Your task to perform on an android device: turn on showing notifications on the lock screen Image 0: 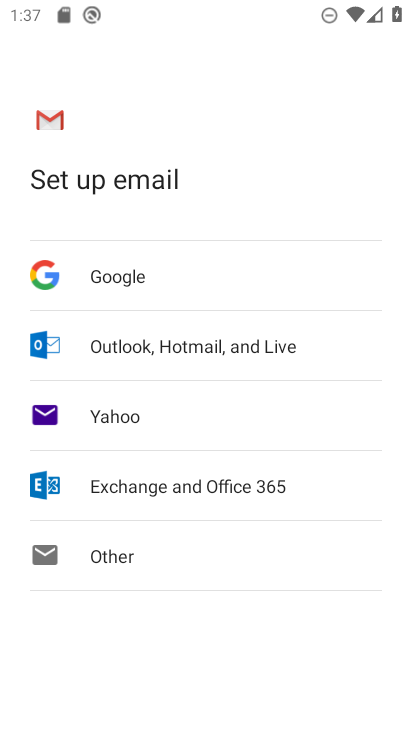
Step 0: press home button
Your task to perform on an android device: turn on showing notifications on the lock screen Image 1: 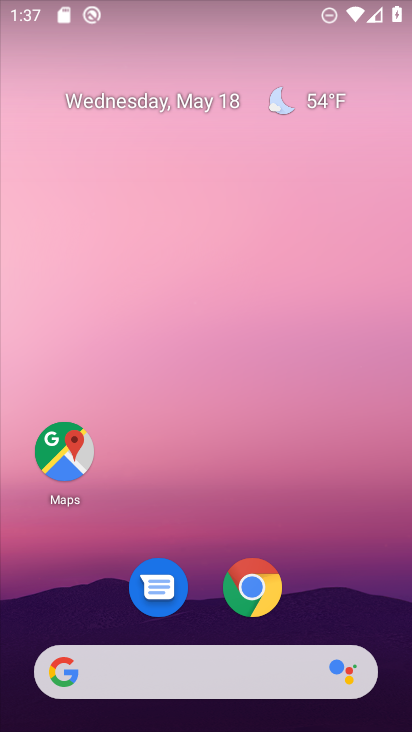
Step 1: drag from (89, 636) to (185, 237)
Your task to perform on an android device: turn on showing notifications on the lock screen Image 2: 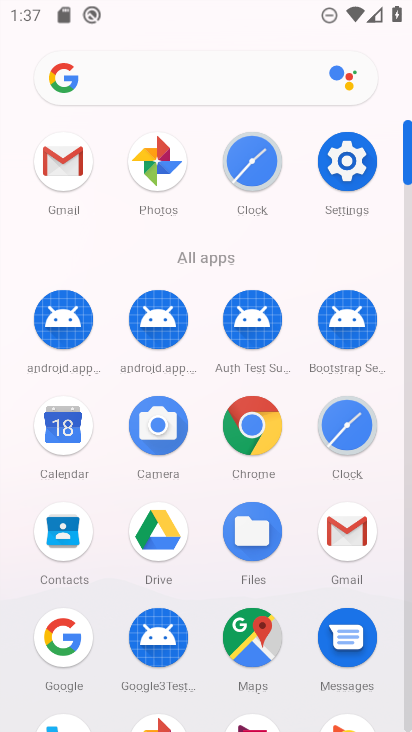
Step 2: drag from (150, 622) to (247, 383)
Your task to perform on an android device: turn on showing notifications on the lock screen Image 3: 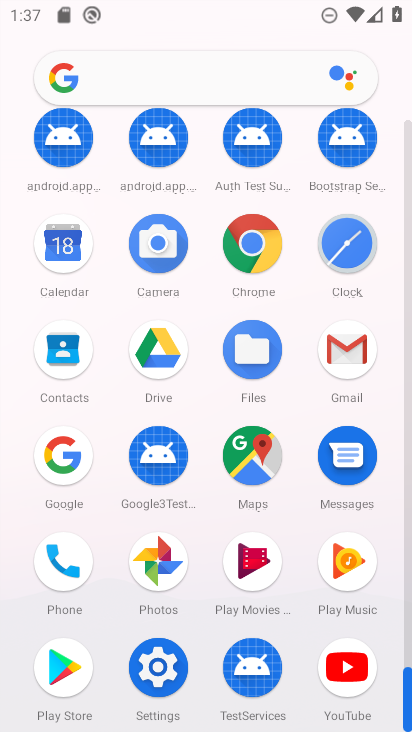
Step 3: click (158, 664)
Your task to perform on an android device: turn on showing notifications on the lock screen Image 4: 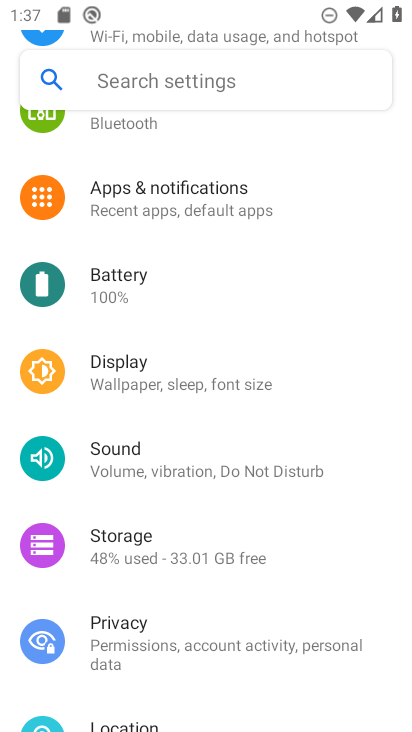
Step 4: click (222, 215)
Your task to perform on an android device: turn on showing notifications on the lock screen Image 5: 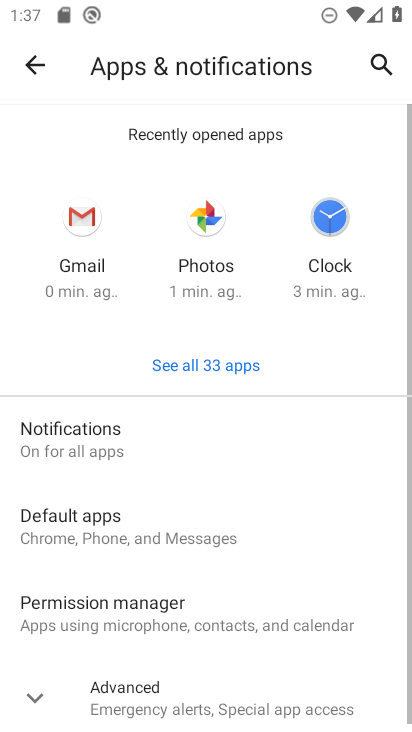
Step 5: click (168, 449)
Your task to perform on an android device: turn on showing notifications on the lock screen Image 6: 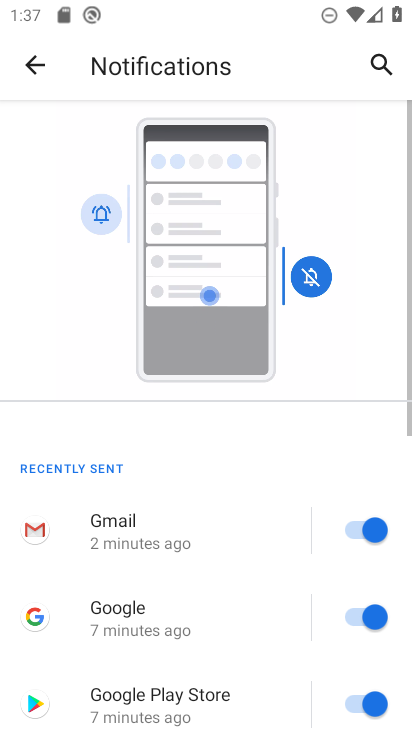
Step 6: drag from (211, 593) to (376, 83)
Your task to perform on an android device: turn on showing notifications on the lock screen Image 7: 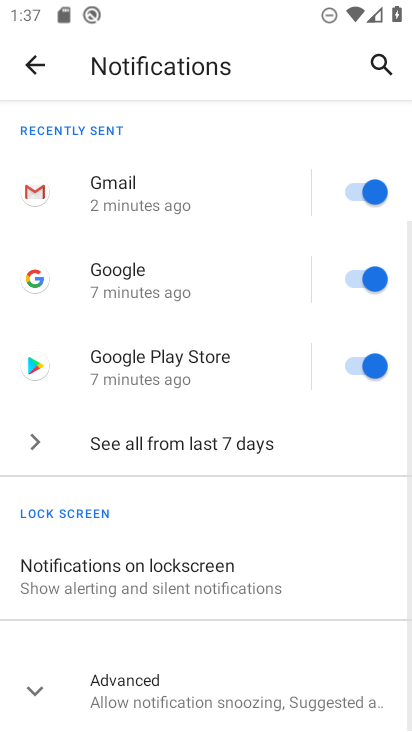
Step 7: click (249, 570)
Your task to perform on an android device: turn on showing notifications on the lock screen Image 8: 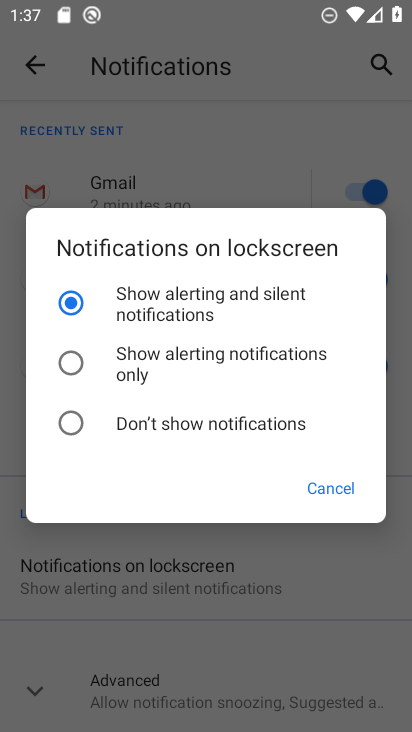
Step 8: task complete